Your task to perform on an android device: Open accessibility settings Image 0: 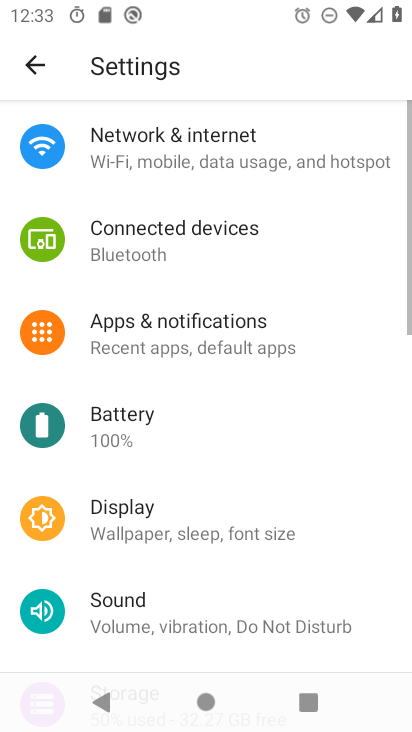
Step 0: press home button
Your task to perform on an android device: Open accessibility settings Image 1: 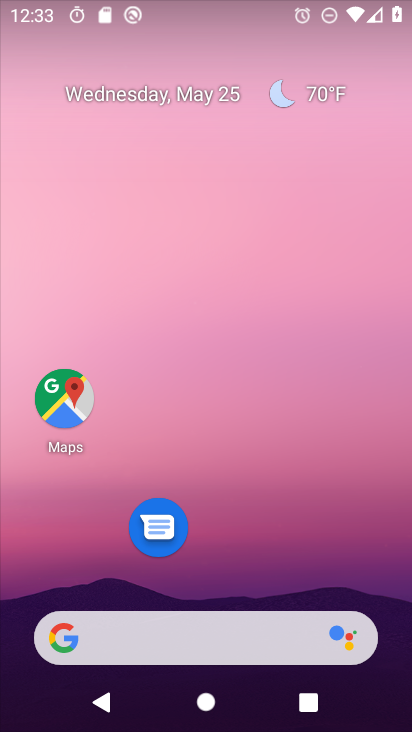
Step 1: drag from (233, 560) to (236, 72)
Your task to perform on an android device: Open accessibility settings Image 2: 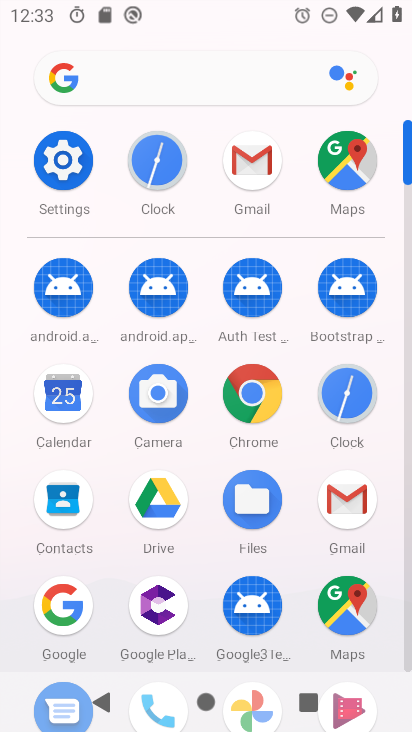
Step 2: click (67, 163)
Your task to perform on an android device: Open accessibility settings Image 3: 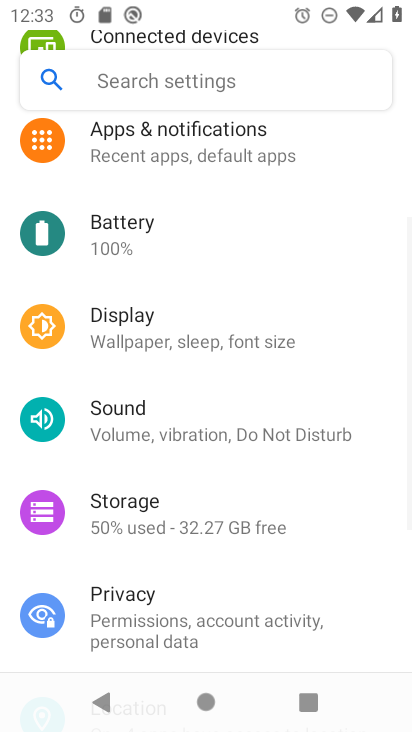
Step 3: drag from (225, 564) to (230, 86)
Your task to perform on an android device: Open accessibility settings Image 4: 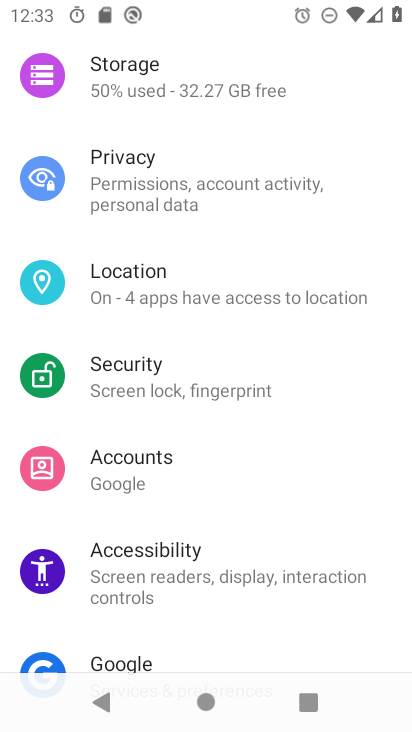
Step 4: click (158, 576)
Your task to perform on an android device: Open accessibility settings Image 5: 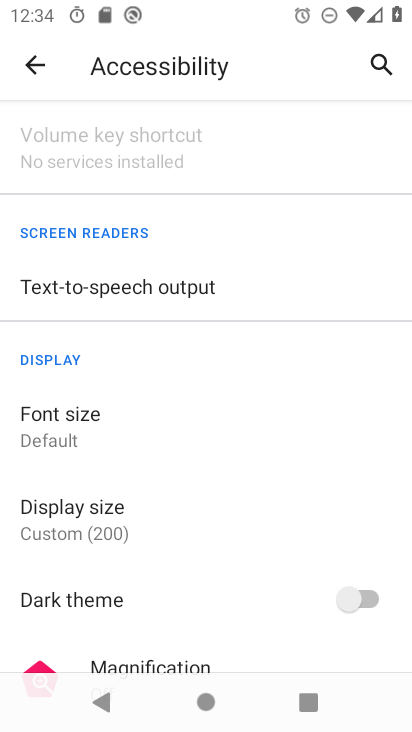
Step 5: task complete